Your task to perform on an android device: What's on my calendar today? Image 0: 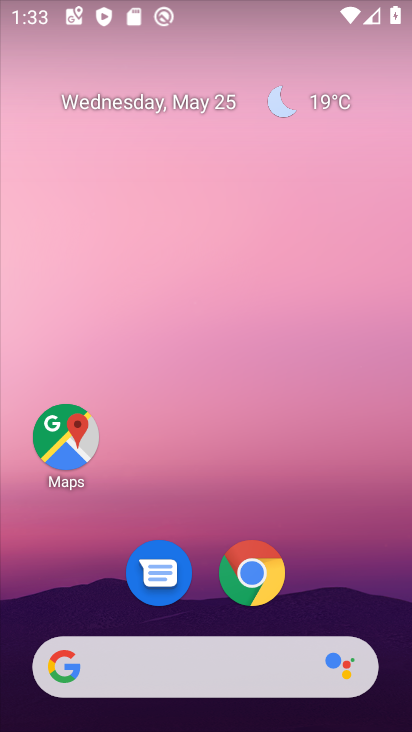
Step 0: drag from (369, 599) to (347, 112)
Your task to perform on an android device: What's on my calendar today? Image 1: 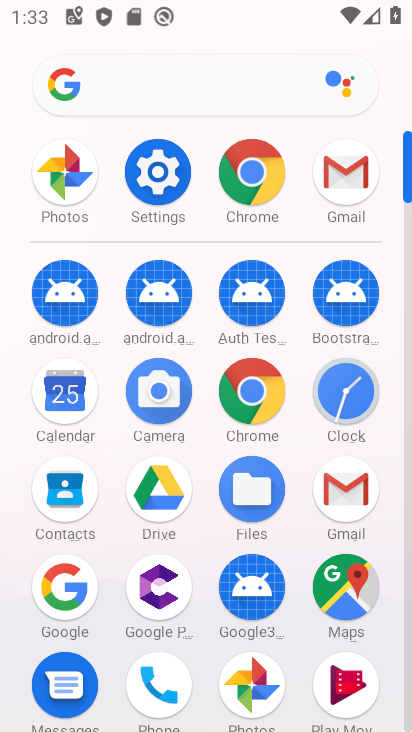
Step 1: click (407, 640)
Your task to perform on an android device: What's on my calendar today? Image 2: 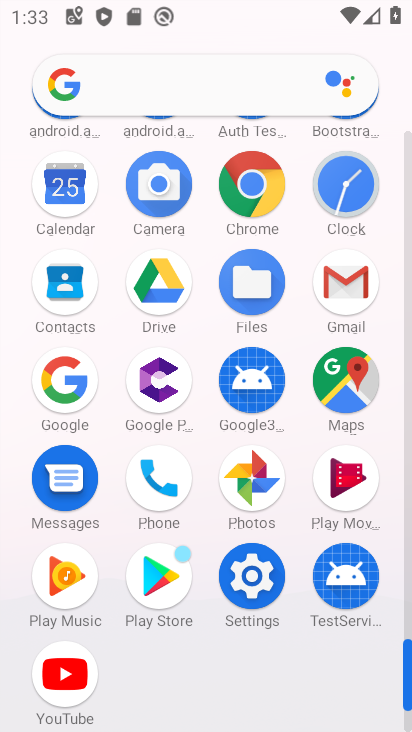
Step 2: click (63, 183)
Your task to perform on an android device: What's on my calendar today? Image 3: 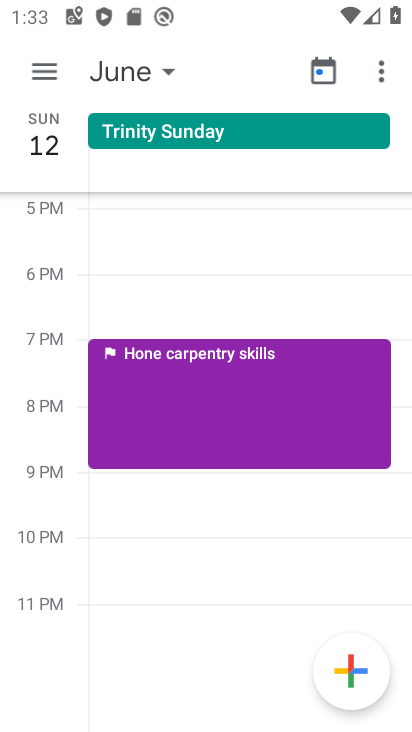
Step 3: click (37, 64)
Your task to perform on an android device: What's on my calendar today? Image 4: 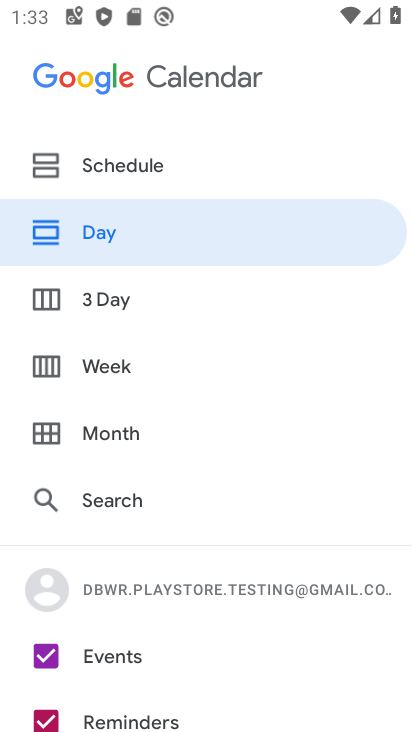
Step 4: click (119, 225)
Your task to perform on an android device: What's on my calendar today? Image 5: 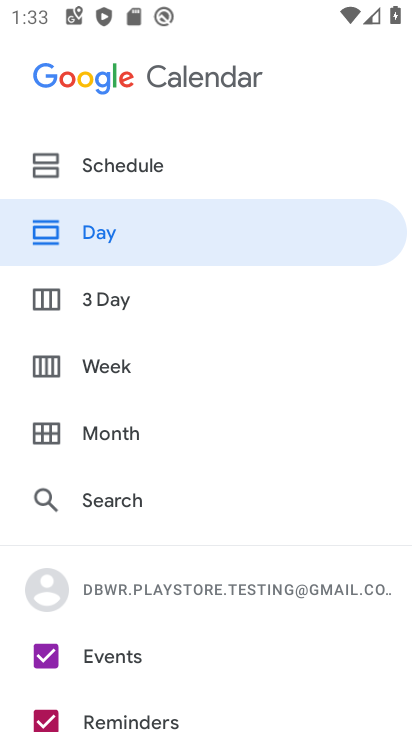
Step 5: click (186, 231)
Your task to perform on an android device: What's on my calendar today? Image 6: 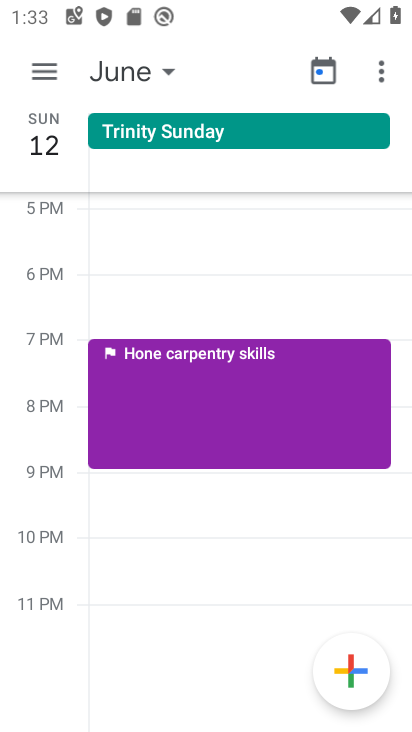
Step 6: click (168, 69)
Your task to perform on an android device: What's on my calendar today? Image 7: 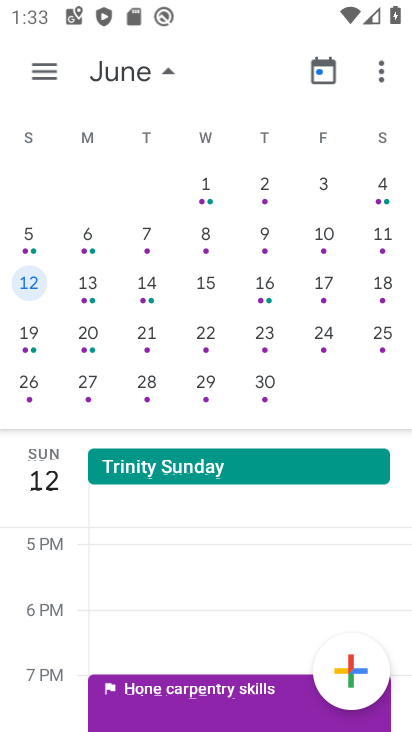
Step 7: drag from (35, 283) to (352, 296)
Your task to perform on an android device: What's on my calendar today? Image 8: 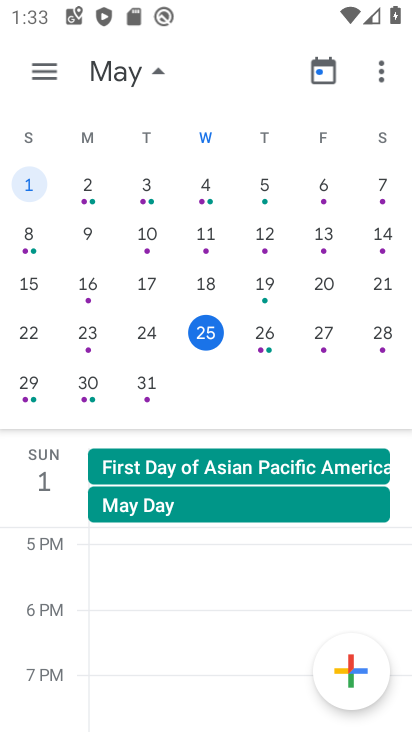
Step 8: click (199, 335)
Your task to perform on an android device: What's on my calendar today? Image 9: 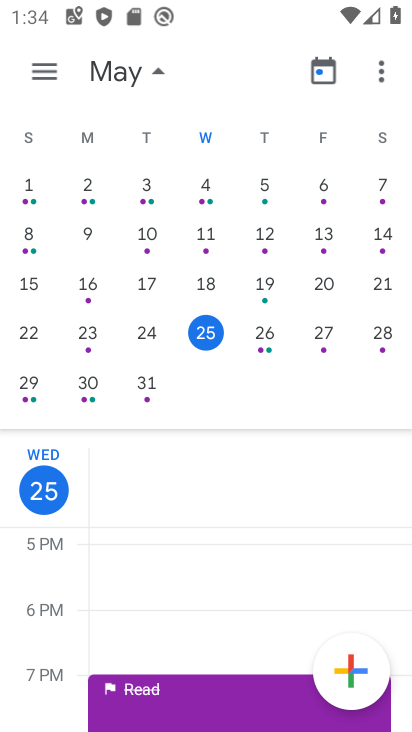
Step 9: task complete